Your task to perform on an android device: Show me popular videos on Youtube Image 0: 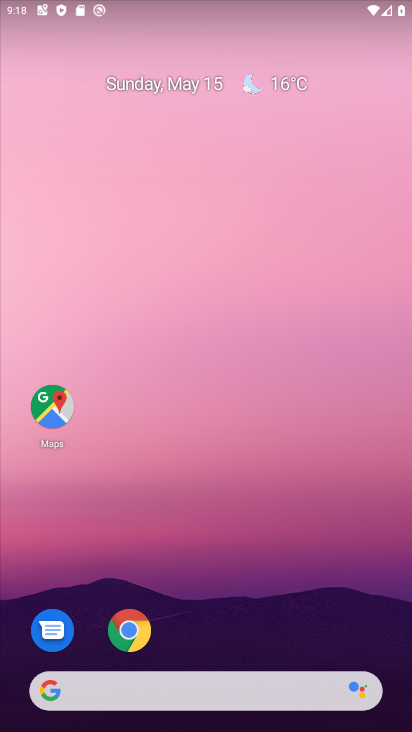
Step 0: drag from (225, 648) to (232, 259)
Your task to perform on an android device: Show me popular videos on Youtube Image 1: 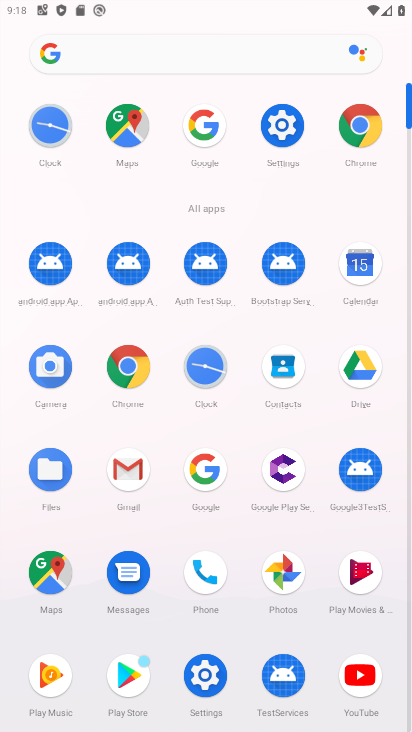
Step 1: click (351, 677)
Your task to perform on an android device: Show me popular videos on Youtube Image 2: 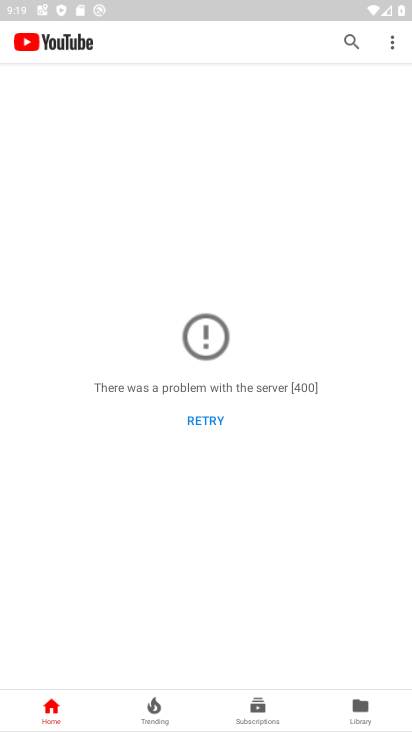
Step 2: click (345, 41)
Your task to perform on an android device: Show me popular videos on Youtube Image 3: 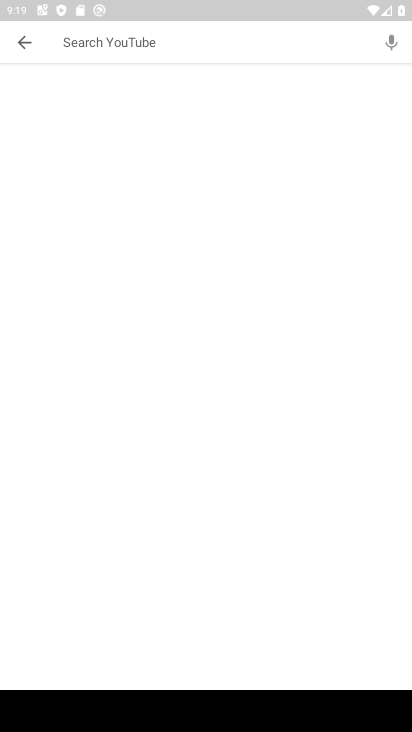
Step 3: type "popular videos"
Your task to perform on an android device: Show me popular videos on Youtube Image 4: 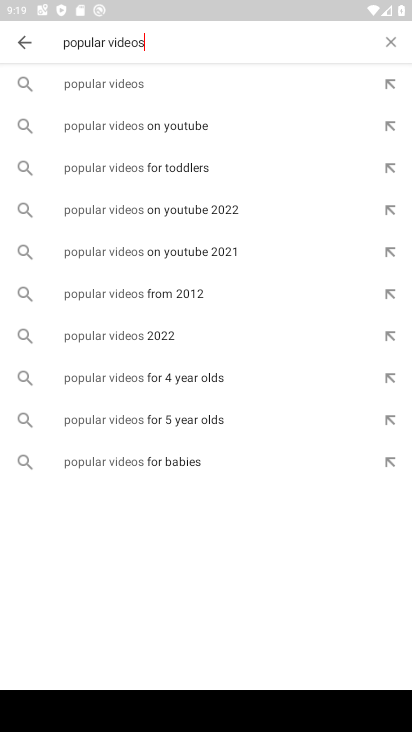
Step 4: click (169, 90)
Your task to perform on an android device: Show me popular videos on Youtube Image 5: 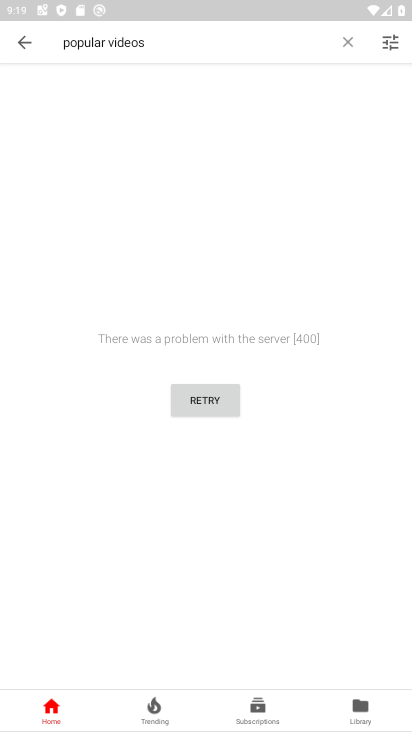
Step 5: task complete